Your task to perform on an android device: remove spam from my inbox in the gmail app Image 0: 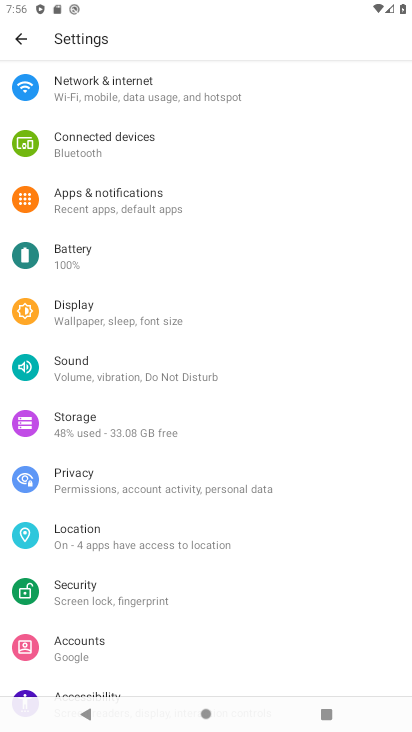
Step 0: press home button
Your task to perform on an android device: remove spam from my inbox in the gmail app Image 1: 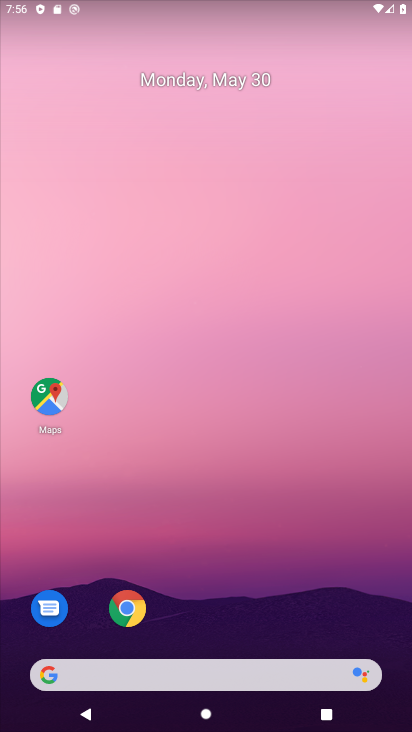
Step 1: drag from (225, 728) to (174, 55)
Your task to perform on an android device: remove spam from my inbox in the gmail app Image 2: 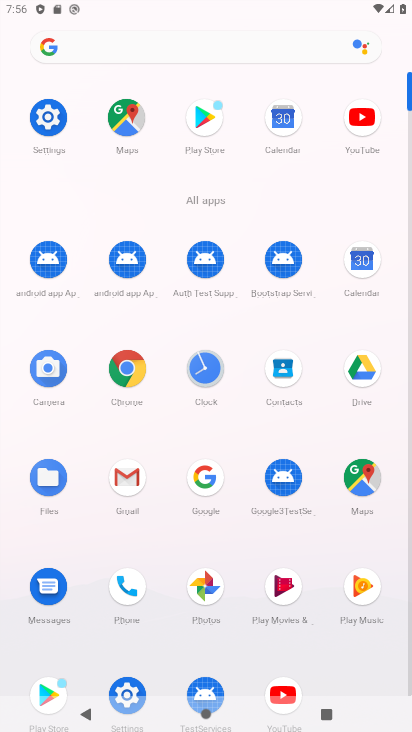
Step 2: click (129, 482)
Your task to perform on an android device: remove spam from my inbox in the gmail app Image 3: 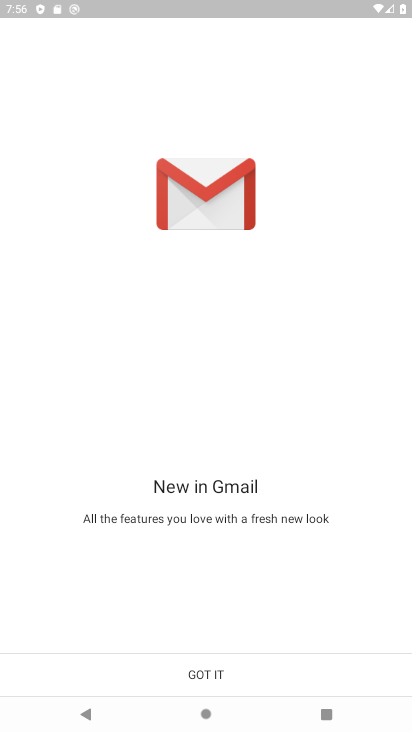
Step 3: click (211, 670)
Your task to perform on an android device: remove spam from my inbox in the gmail app Image 4: 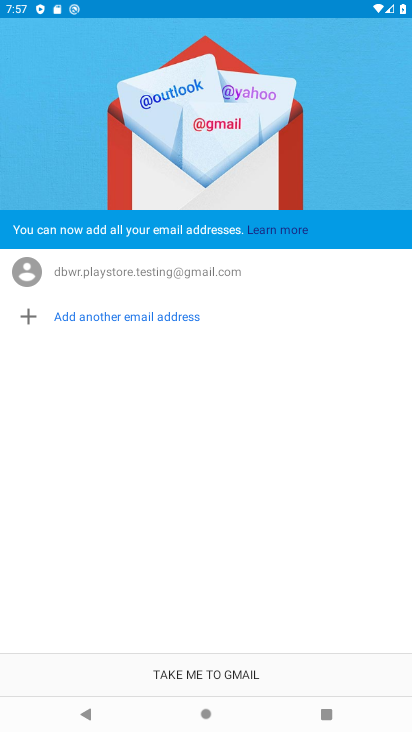
Step 4: click (216, 670)
Your task to perform on an android device: remove spam from my inbox in the gmail app Image 5: 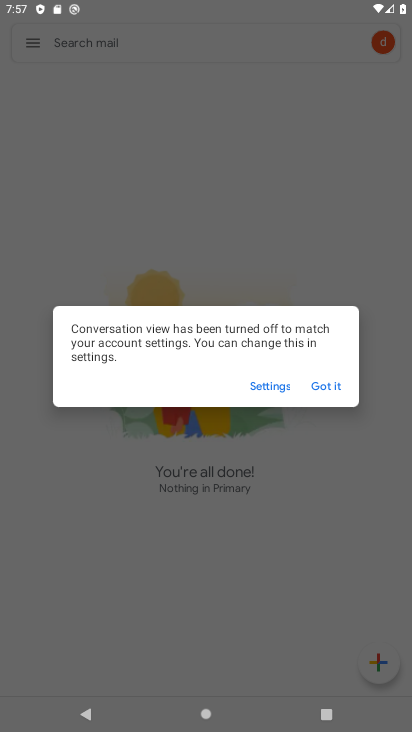
Step 5: click (325, 385)
Your task to perform on an android device: remove spam from my inbox in the gmail app Image 6: 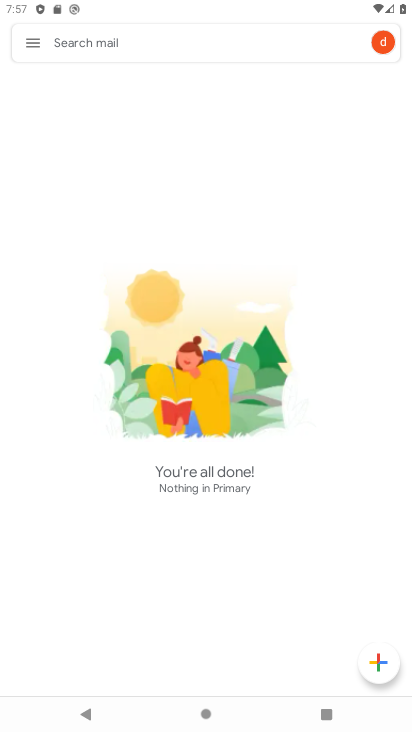
Step 6: task complete